Your task to perform on an android device: When is my next appointment? Image 0: 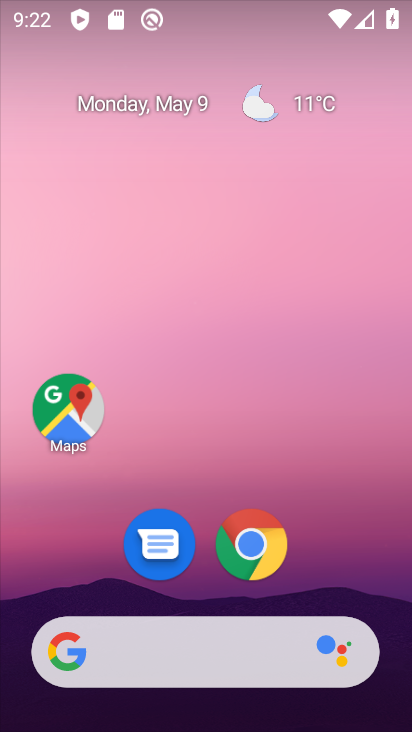
Step 0: drag from (390, 477) to (356, 238)
Your task to perform on an android device: When is my next appointment? Image 1: 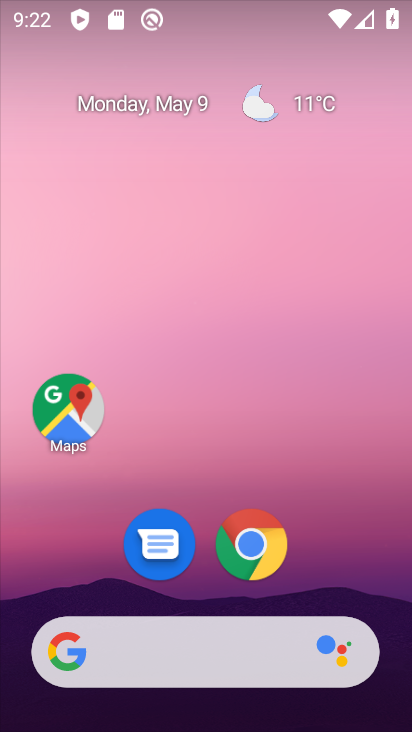
Step 1: drag from (403, 500) to (403, 205)
Your task to perform on an android device: When is my next appointment? Image 2: 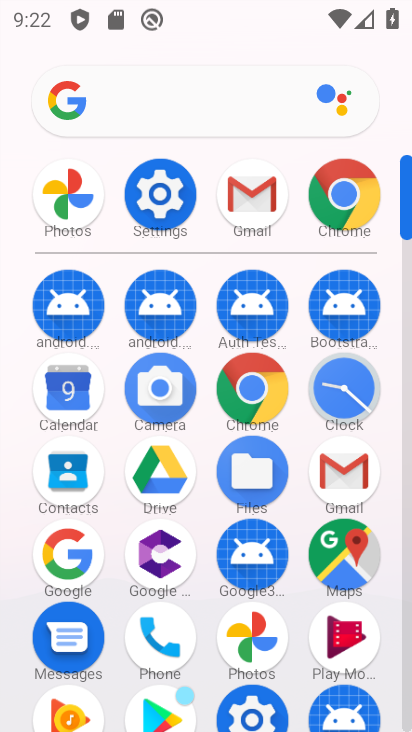
Step 2: click (65, 392)
Your task to perform on an android device: When is my next appointment? Image 3: 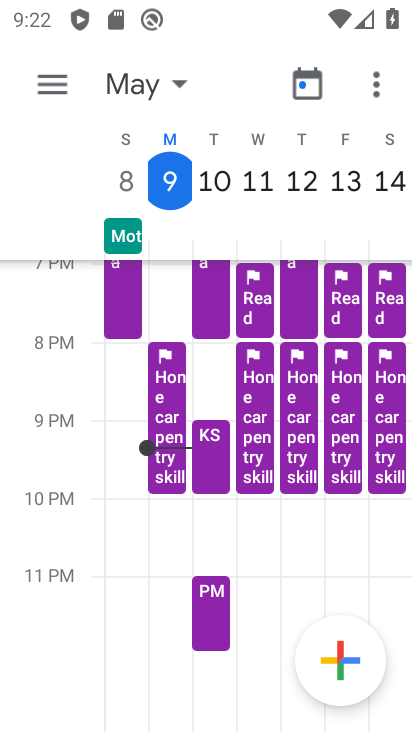
Step 3: click (53, 78)
Your task to perform on an android device: When is my next appointment? Image 4: 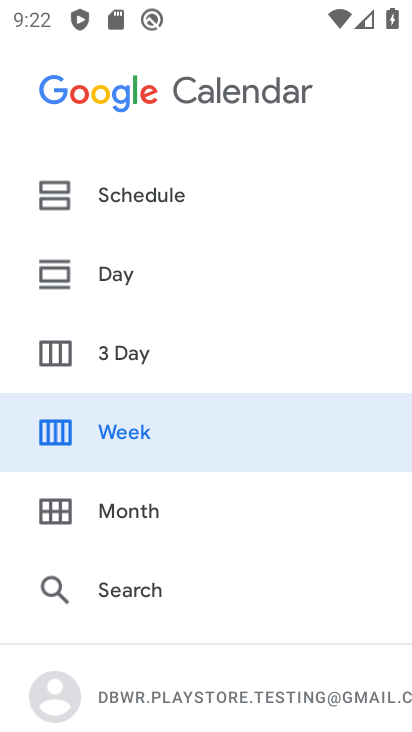
Step 4: click (132, 199)
Your task to perform on an android device: When is my next appointment? Image 5: 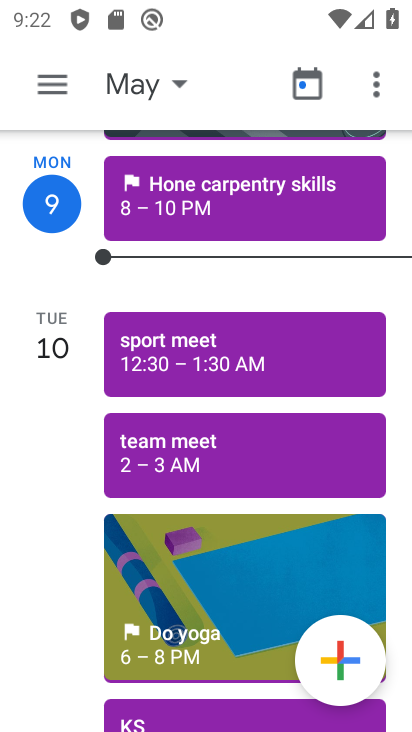
Step 5: click (49, 80)
Your task to perform on an android device: When is my next appointment? Image 6: 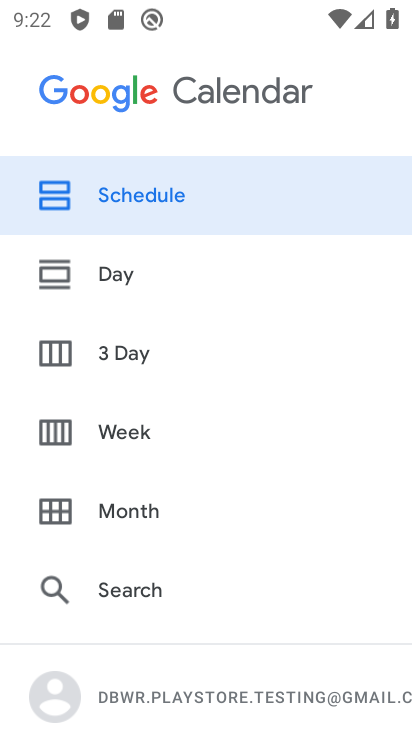
Step 6: drag from (263, 619) to (270, 313)
Your task to perform on an android device: When is my next appointment? Image 7: 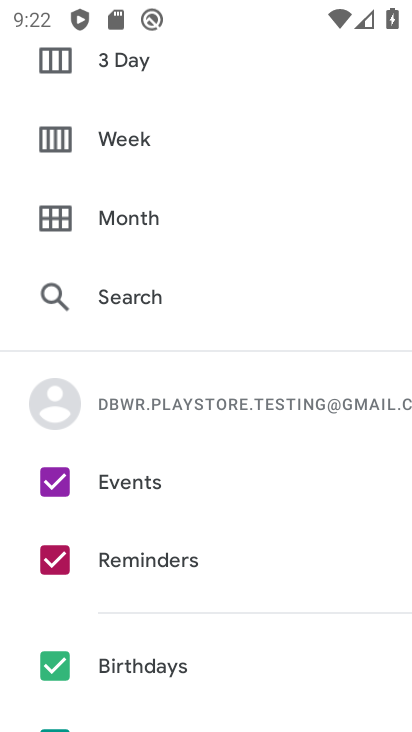
Step 7: drag from (275, 626) to (275, 335)
Your task to perform on an android device: When is my next appointment? Image 8: 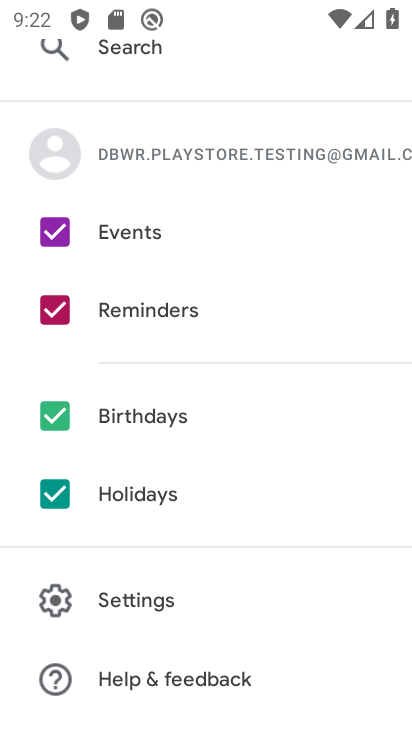
Step 8: click (54, 492)
Your task to perform on an android device: When is my next appointment? Image 9: 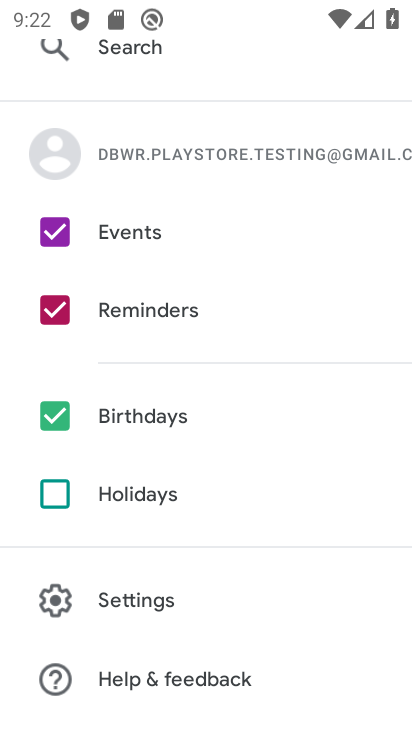
Step 9: click (65, 412)
Your task to perform on an android device: When is my next appointment? Image 10: 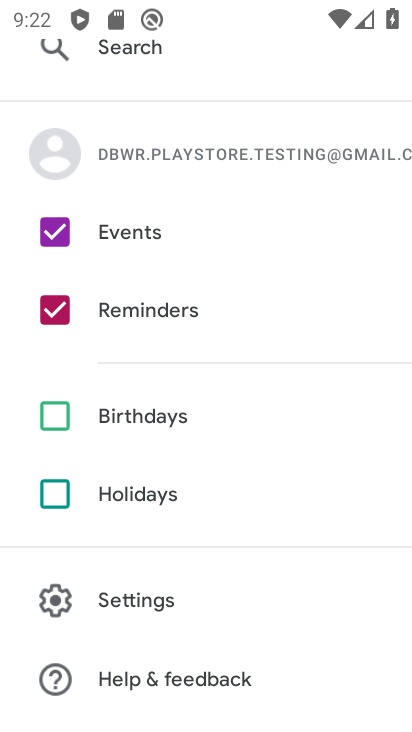
Step 10: click (55, 310)
Your task to perform on an android device: When is my next appointment? Image 11: 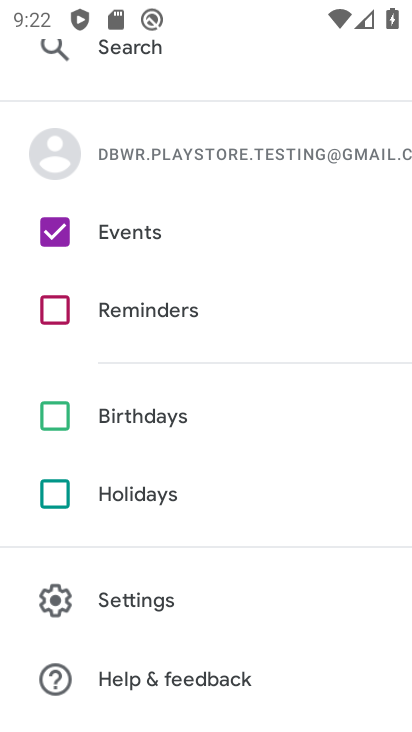
Step 11: click (51, 309)
Your task to perform on an android device: When is my next appointment? Image 12: 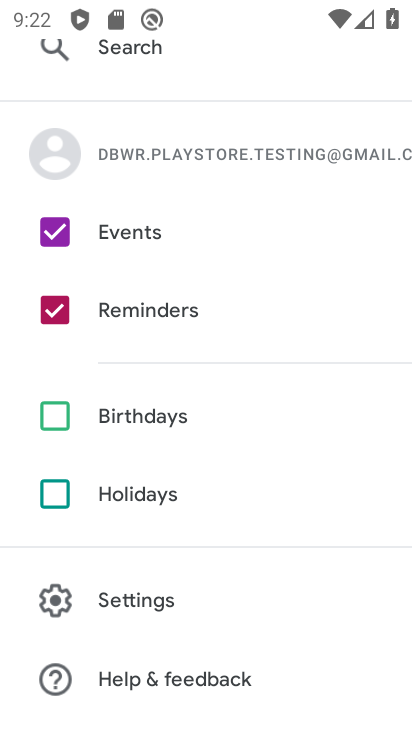
Step 12: click (53, 309)
Your task to perform on an android device: When is my next appointment? Image 13: 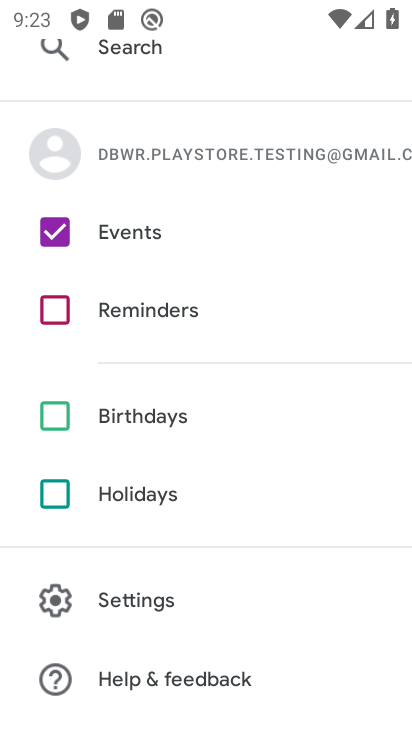
Step 13: drag from (334, 170) to (317, 525)
Your task to perform on an android device: When is my next appointment? Image 14: 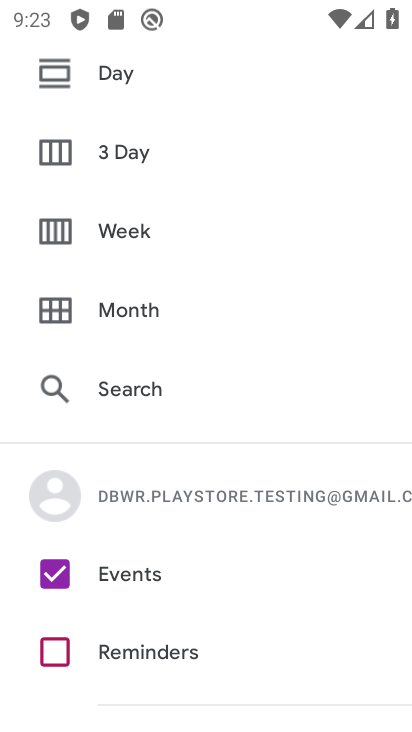
Step 14: drag from (284, 298) to (297, 634)
Your task to perform on an android device: When is my next appointment? Image 15: 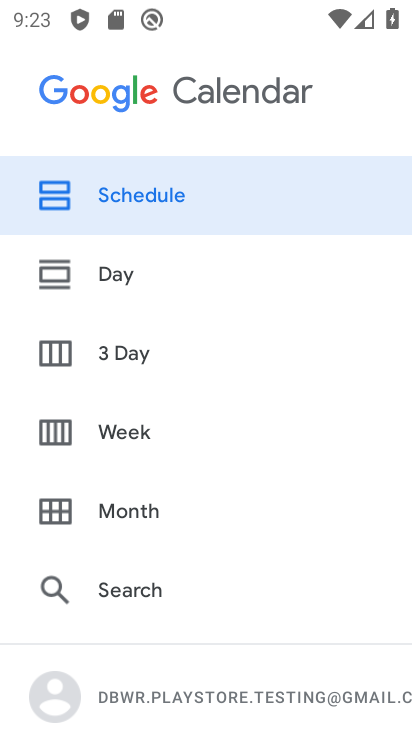
Step 15: click (228, 193)
Your task to perform on an android device: When is my next appointment? Image 16: 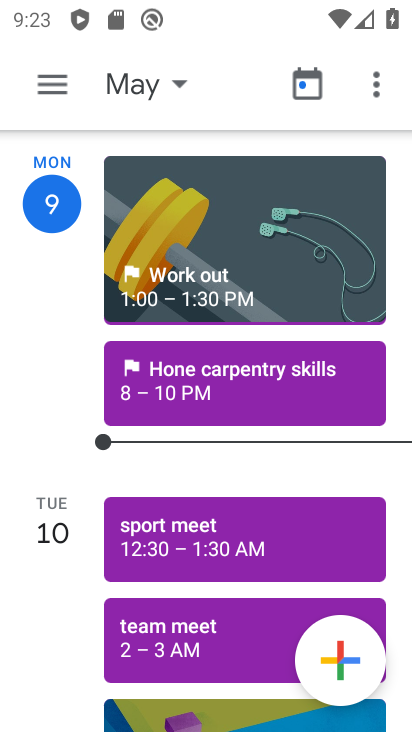
Step 16: click (177, 79)
Your task to perform on an android device: When is my next appointment? Image 17: 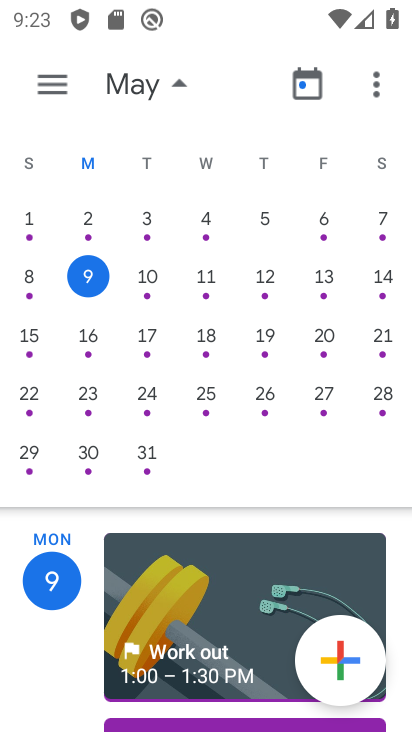
Step 17: task complete